Your task to perform on an android device: Open Maps and search for coffee Image 0: 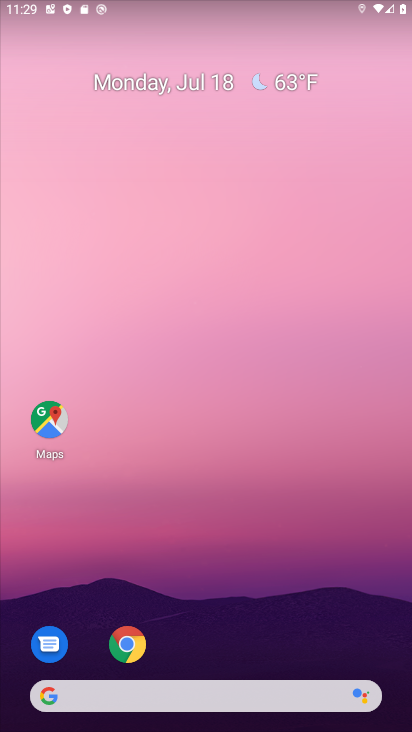
Step 0: click (217, 123)
Your task to perform on an android device: Open Maps and search for coffee Image 1: 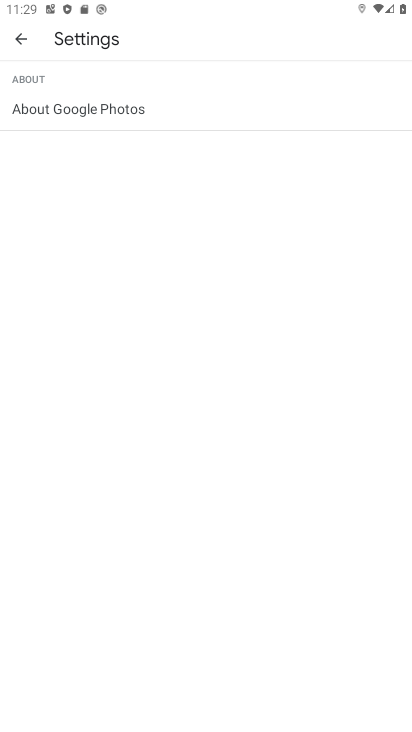
Step 1: press home button
Your task to perform on an android device: Open Maps and search for coffee Image 2: 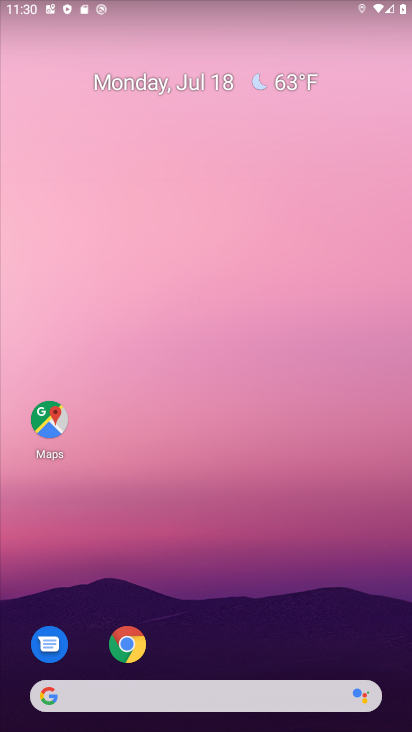
Step 2: drag from (184, 445) to (184, 124)
Your task to perform on an android device: Open Maps and search for coffee Image 3: 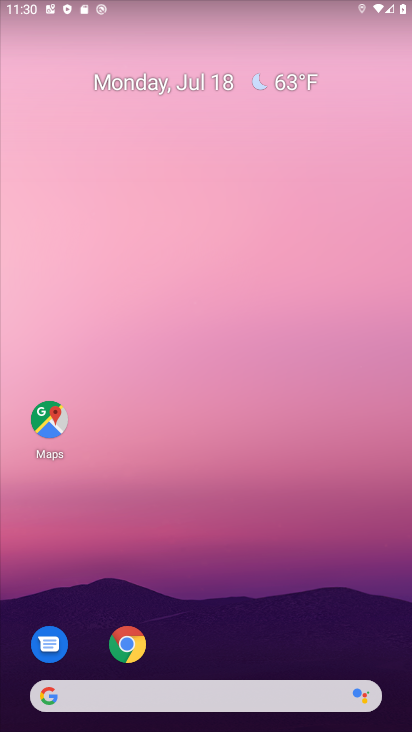
Step 3: drag from (246, 730) to (224, 555)
Your task to perform on an android device: Open Maps and search for coffee Image 4: 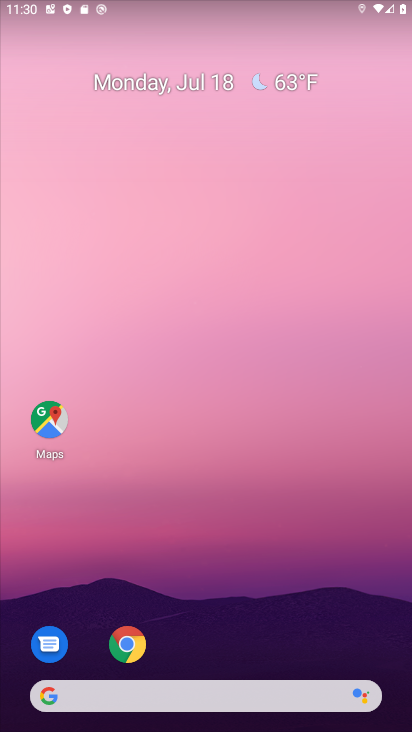
Step 4: drag from (217, 293) to (217, 128)
Your task to perform on an android device: Open Maps and search for coffee Image 5: 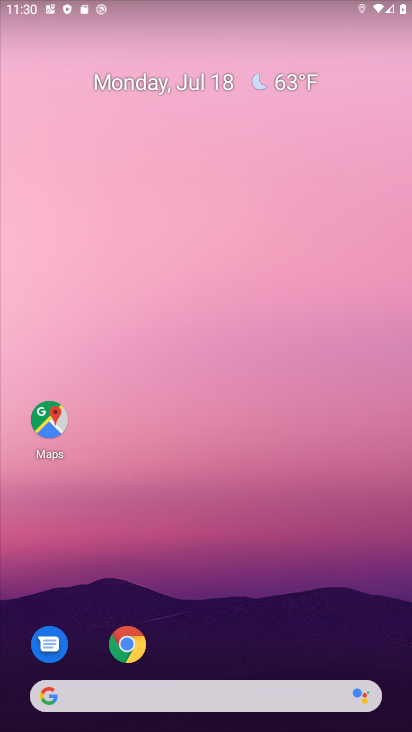
Step 5: drag from (243, 728) to (205, 180)
Your task to perform on an android device: Open Maps and search for coffee Image 6: 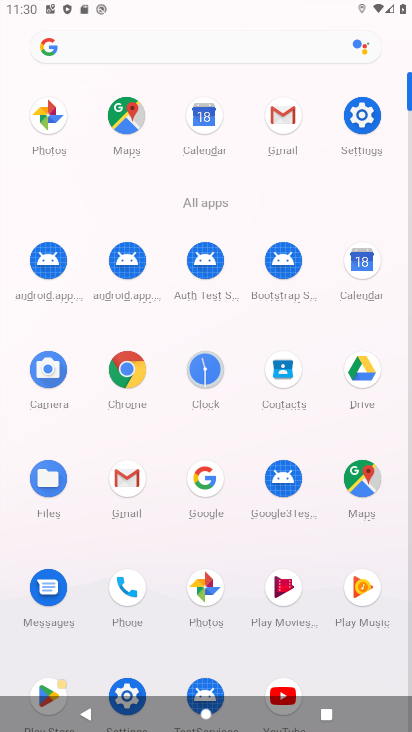
Step 6: click (355, 466)
Your task to perform on an android device: Open Maps and search for coffee Image 7: 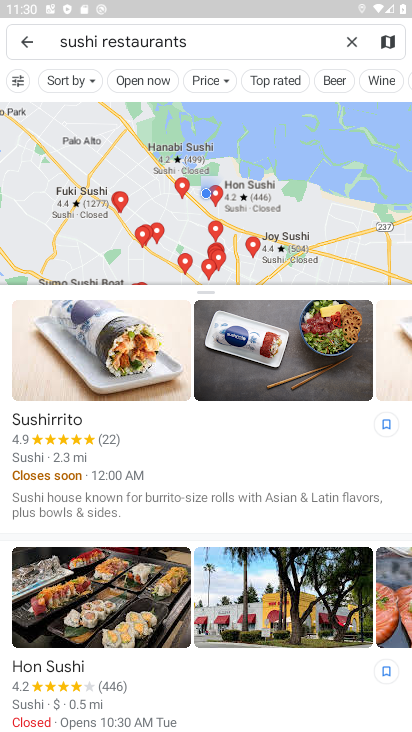
Step 7: click (349, 35)
Your task to perform on an android device: Open Maps and search for coffee Image 8: 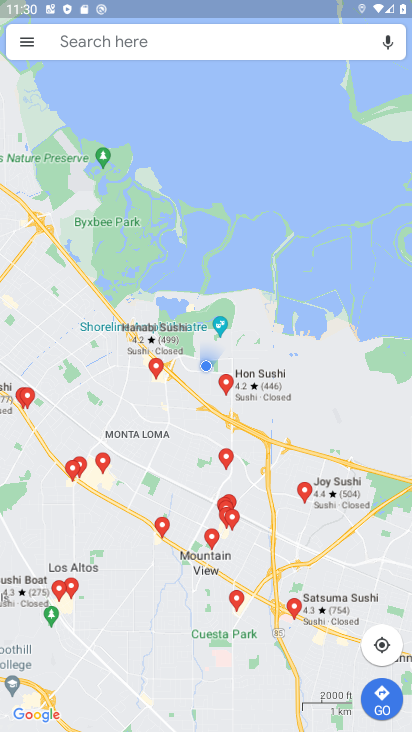
Step 8: click (150, 40)
Your task to perform on an android device: Open Maps and search for coffee Image 9: 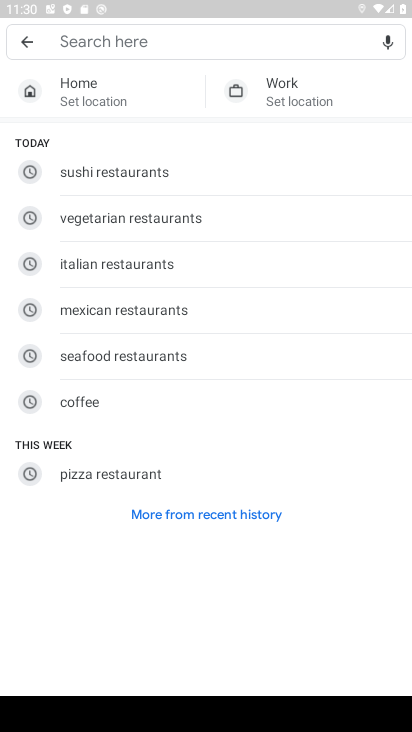
Step 9: click (91, 36)
Your task to perform on an android device: Open Maps and search for coffee Image 10: 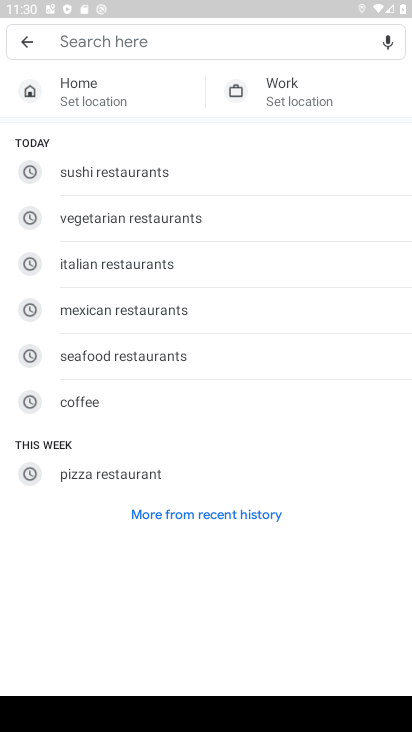
Step 10: type "coffee"
Your task to perform on an android device: Open Maps and search for coffee Image 11: 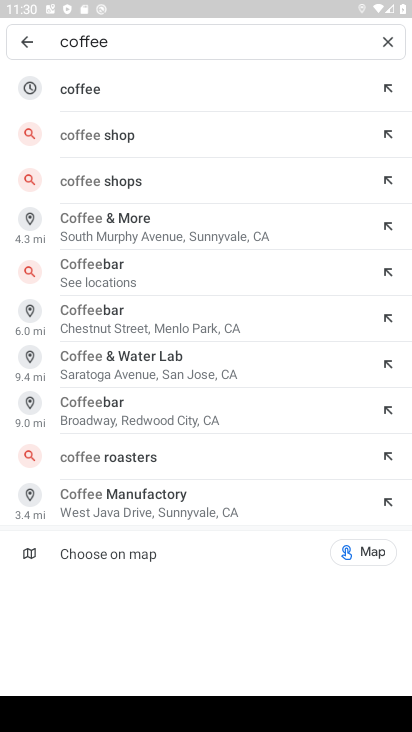
Step 11: click (93, 85)
Your task to perform on an android device: Open Maps and search for coffee Image 12: 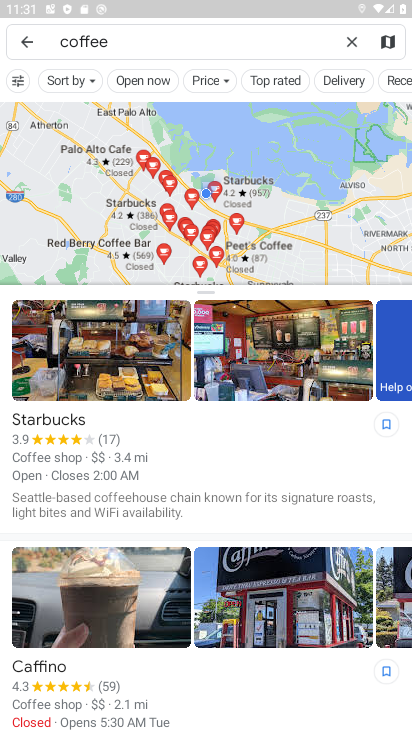
Step 12: task complete